Your task to perform on an android device: open wifi settings Image 0: 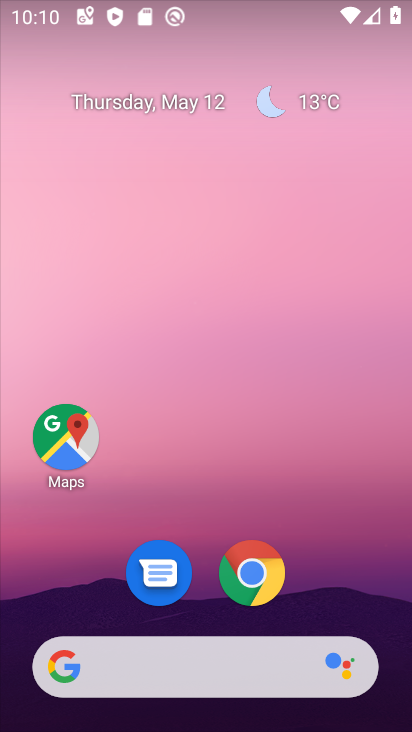
Step 0: drag from (212, 616) to (271, 28)
Your task to perform on an android device: open wifi settings Image 1: 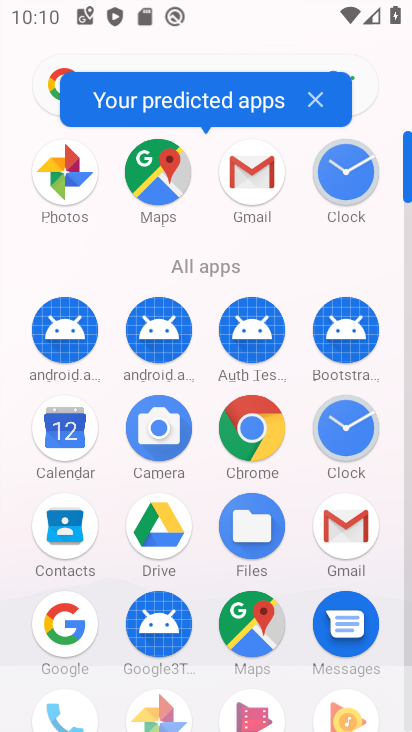
Step 1: drag from (199, 513) to (137, 146)
Your task to perform on an android device: open wifi settings Image 2: 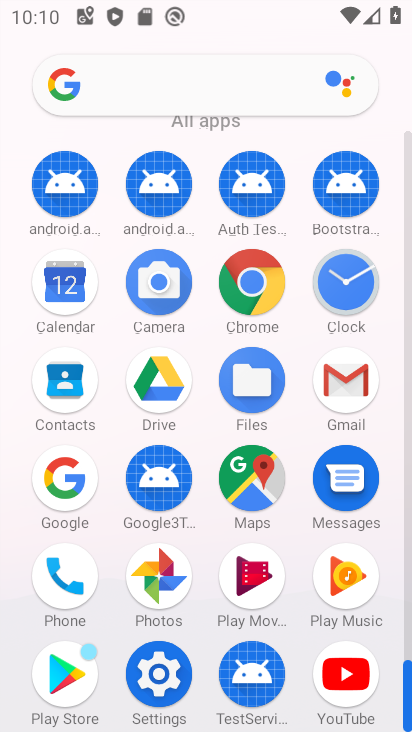
Step 2: click (168, 666)
Your task to perform on an android device: open wifi settings Image 3: 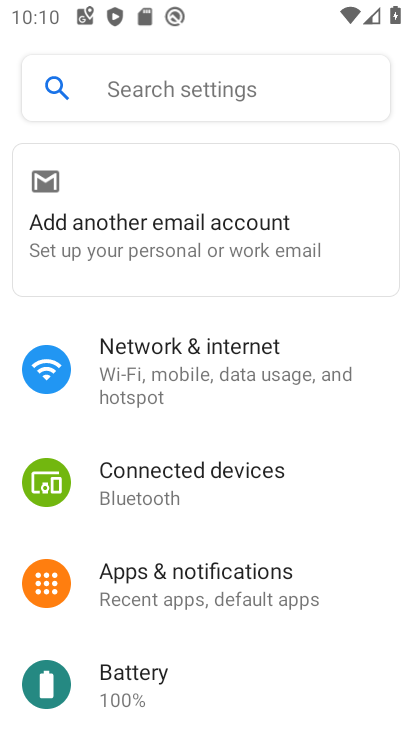
Step 3: click (120, 366)
Your task to perform on an android device: open wifi settings Image 4: 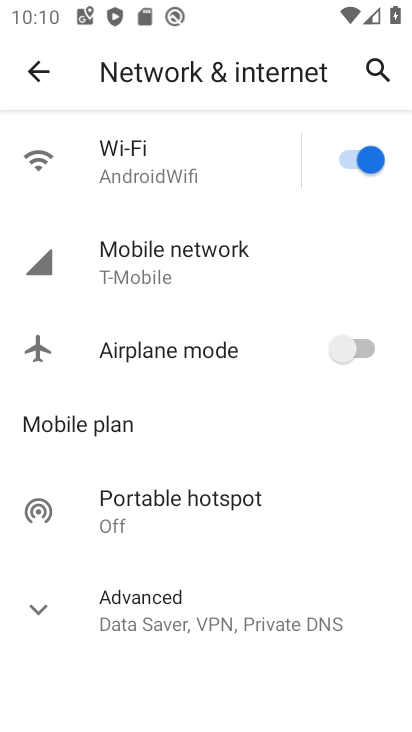
Step 4: click (85, 183)
Your task to perform on an android device: open wifi settings Image 5: 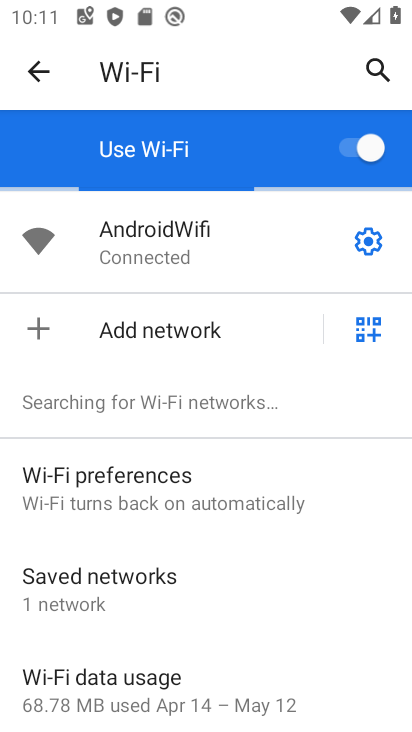
Step 5: task complete